Your task to perform on an android device: open app "Clock" Image 0: 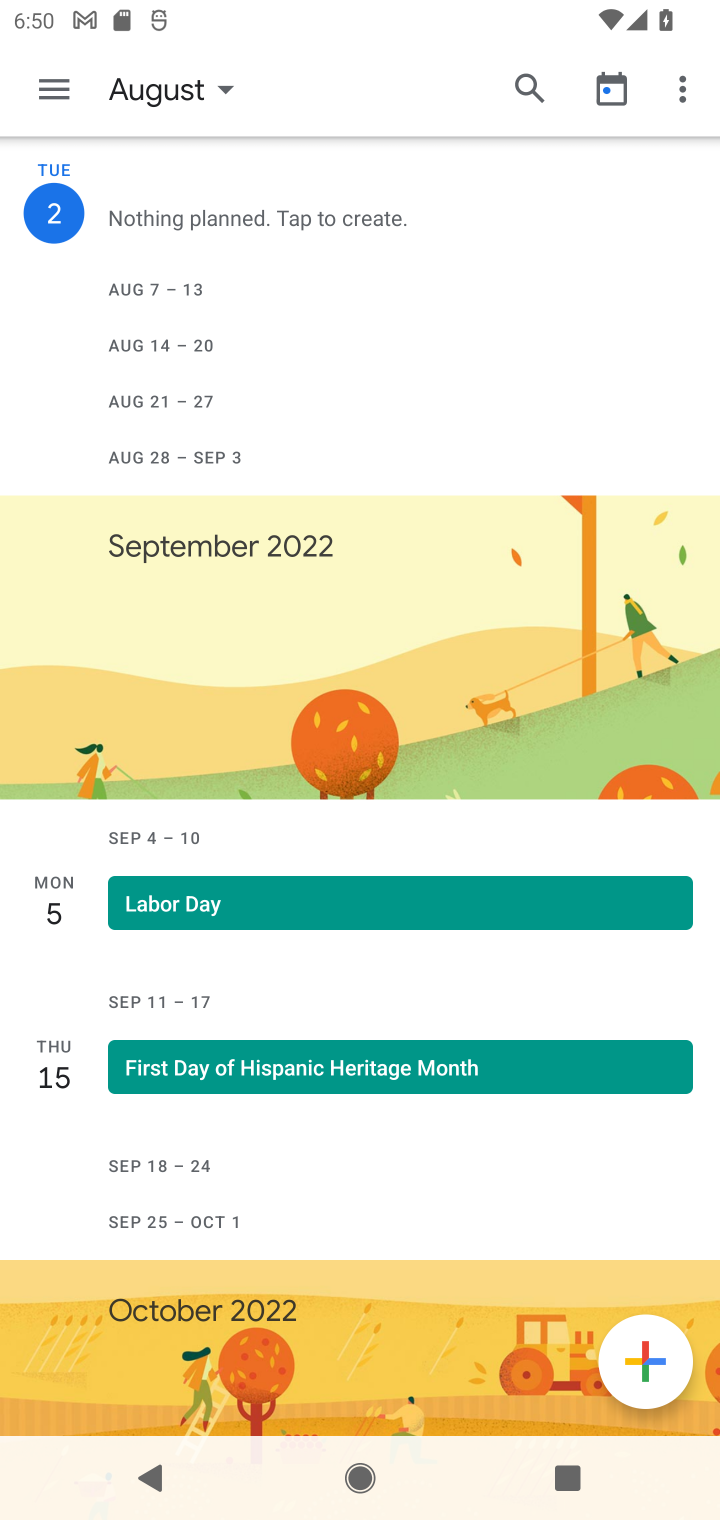
Step 0: press home button
Your task to perform on an android device: open app "Clock" Image 1: 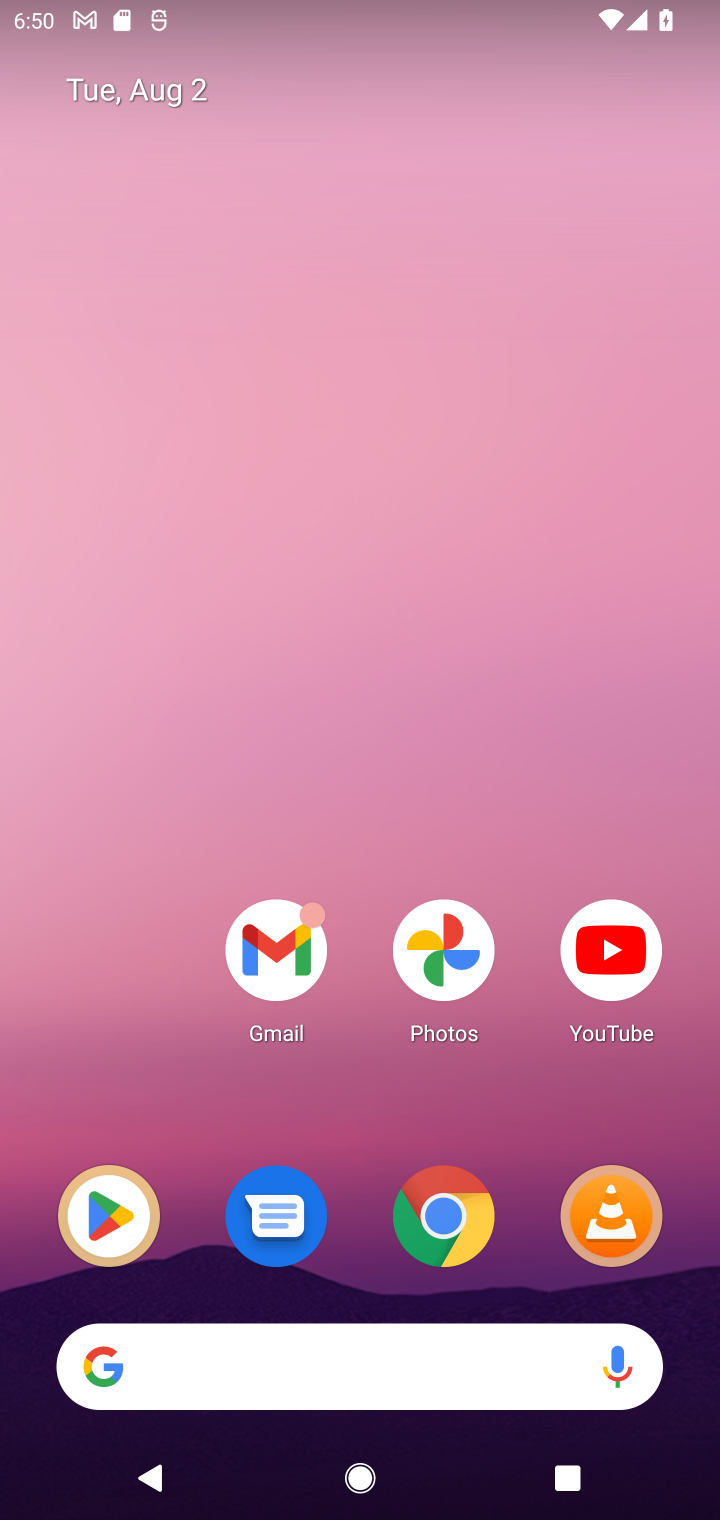
Step 1: click (109, 1199)
Your task to perform on an android device: open app "Clock" Image 2: 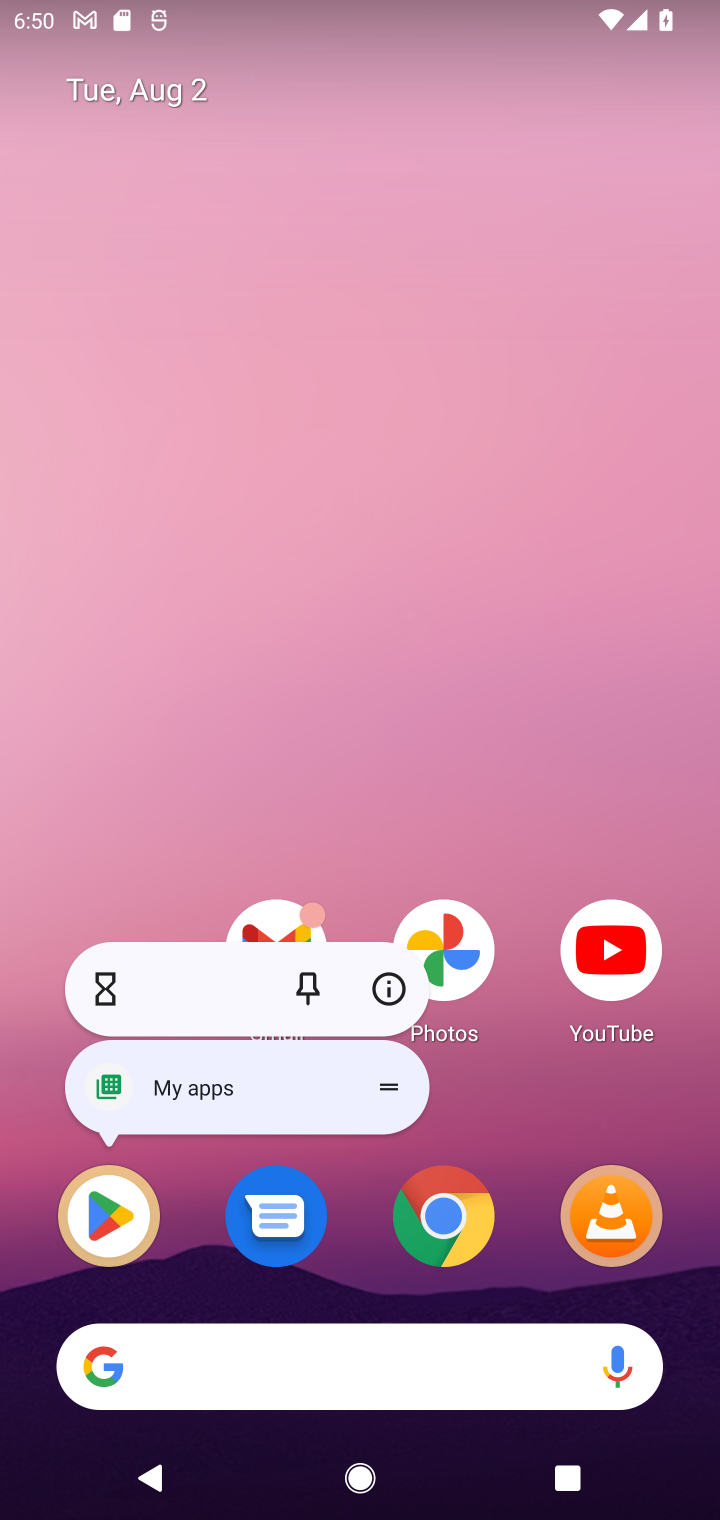
Step 2: click (109, 1199)
Your task to perform on an android device: open app "Clock" Image 3: 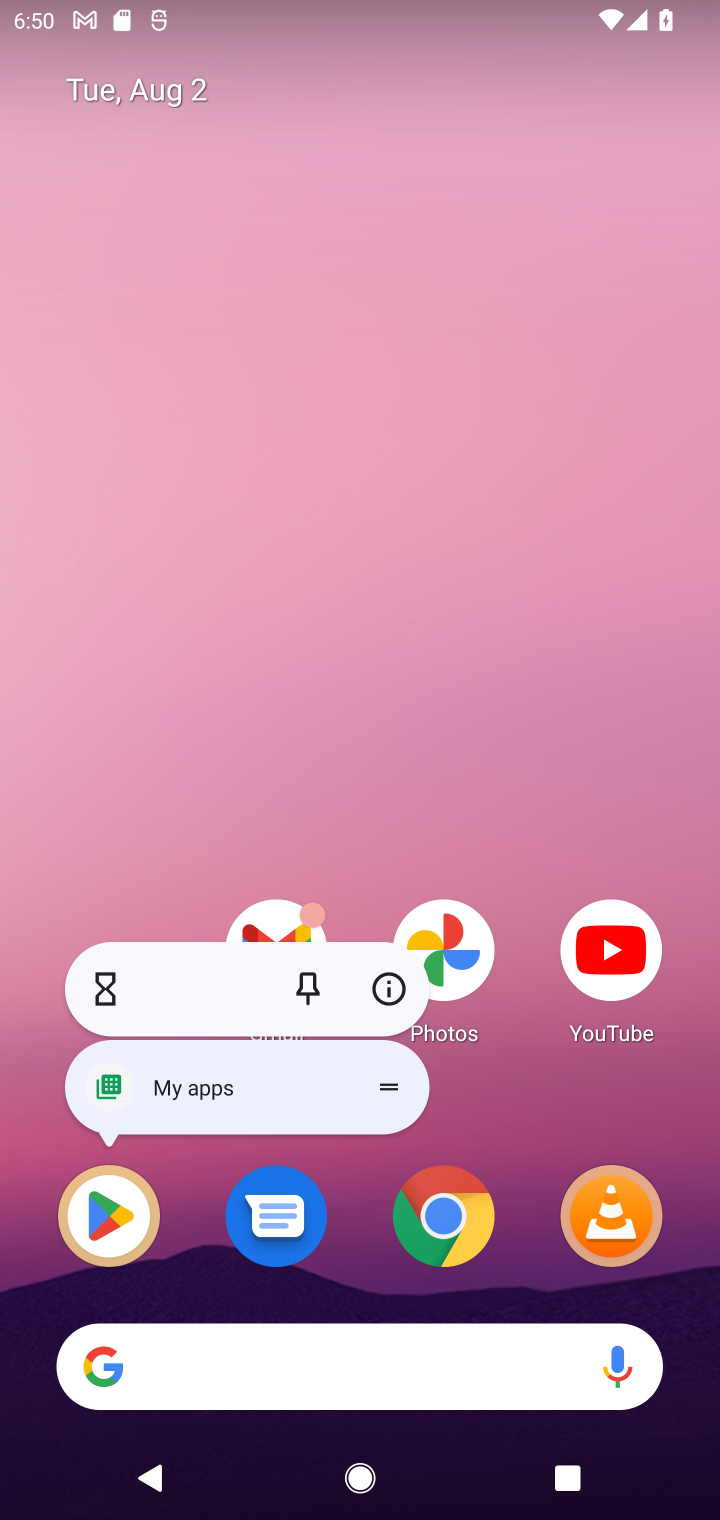
Step 3: click (107, 1214)
Your task to perform on an android device: open app "Clock" Image 4: 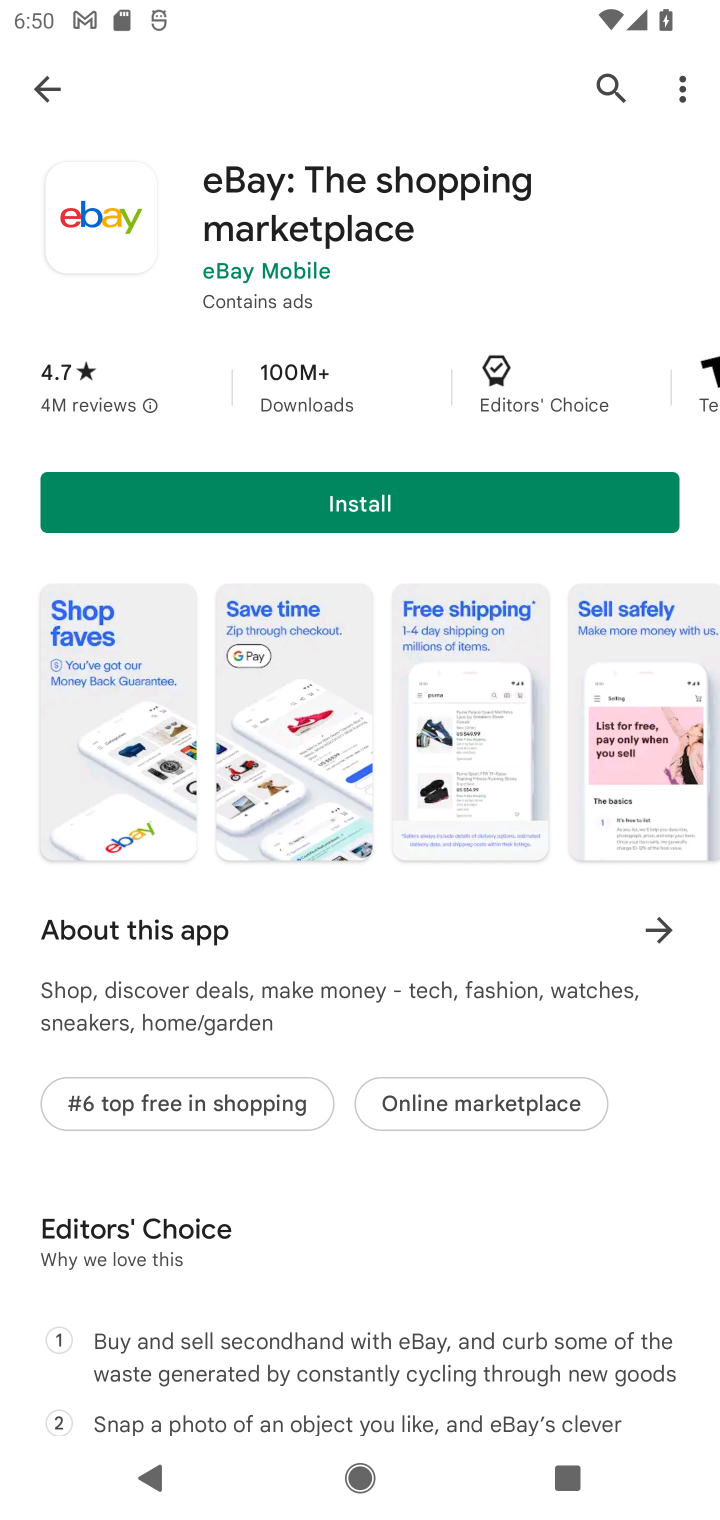
Step 4: click (599, 74)
Your task to perform on an android device: open app "Clock" Image 5: 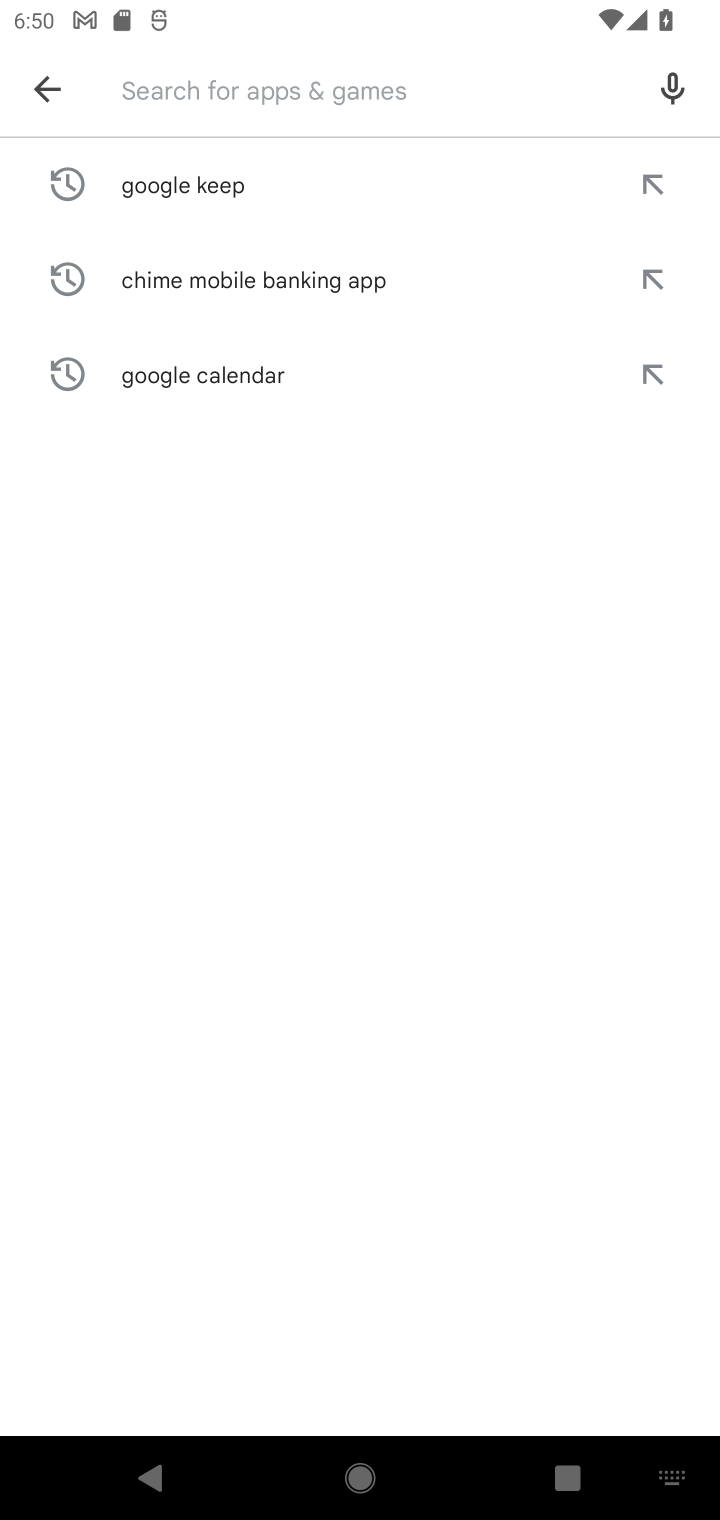
Step 5: type "Clock"
Your task to perform on an android device: open app "Clock" Image 6: 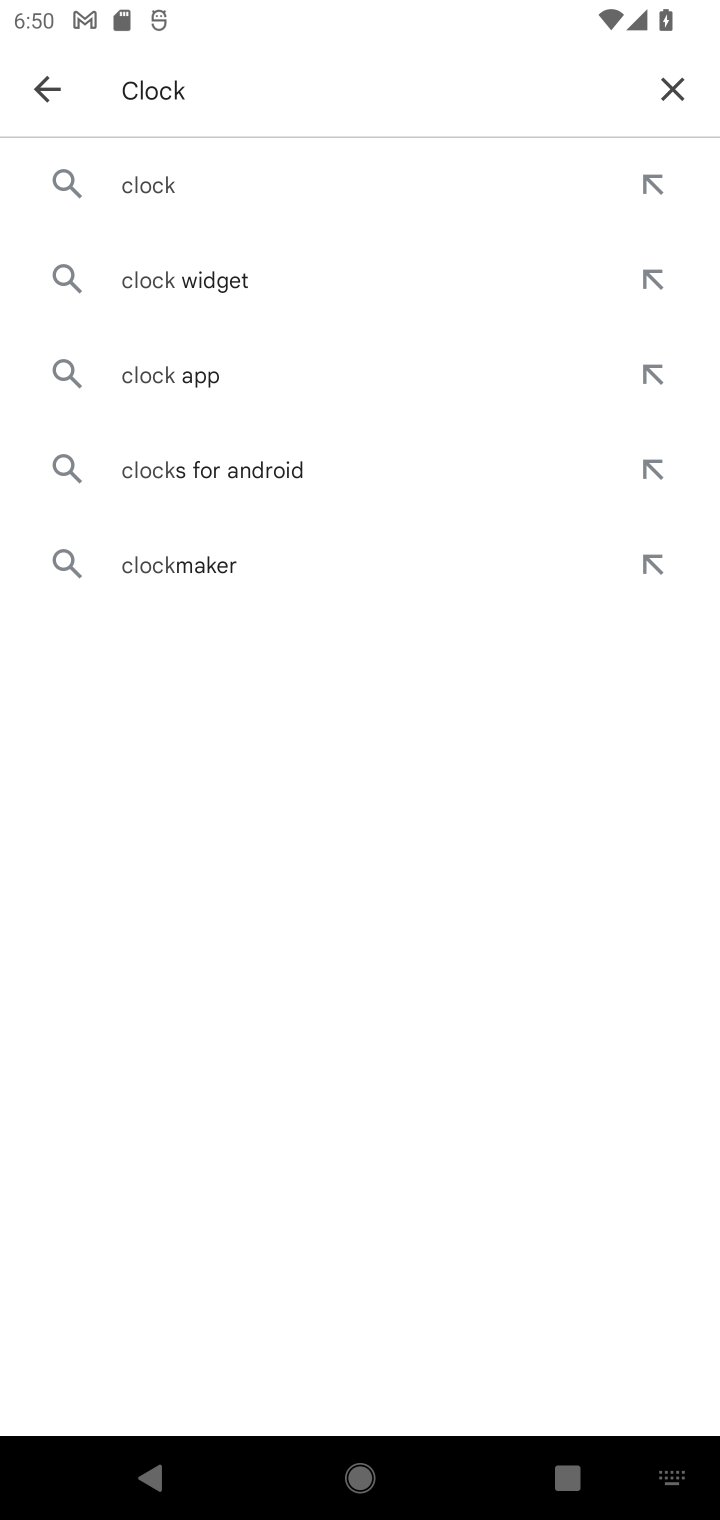
Step 6: click (152, 194)
Your task to perform on an android device: open app "Clock" Image 7: 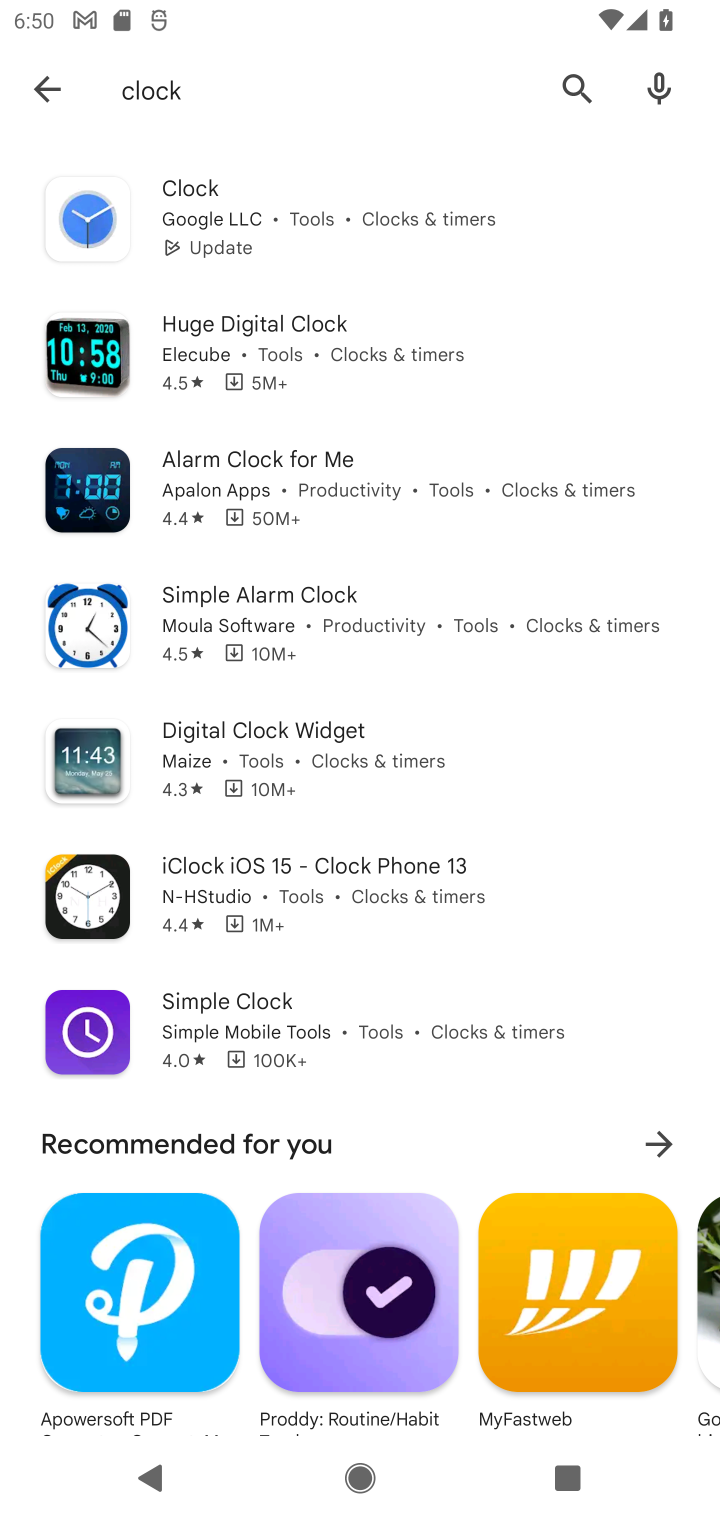
Step 7: click (197, 218)
Your task to perform on an android device: open app "Clock" Image 8: 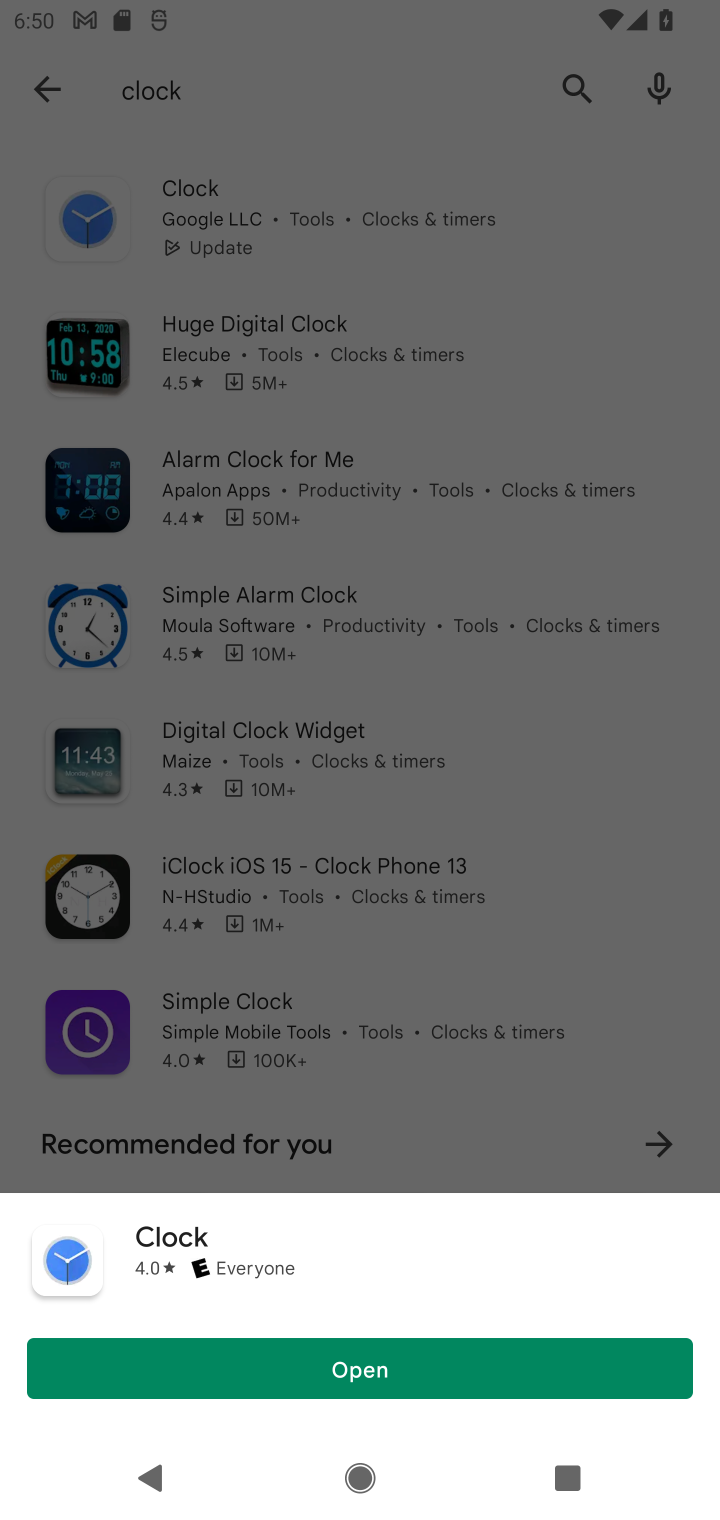
Step 8: click (357, 1371)
Your task to perform on an android device: open app "Clock" Image 9: 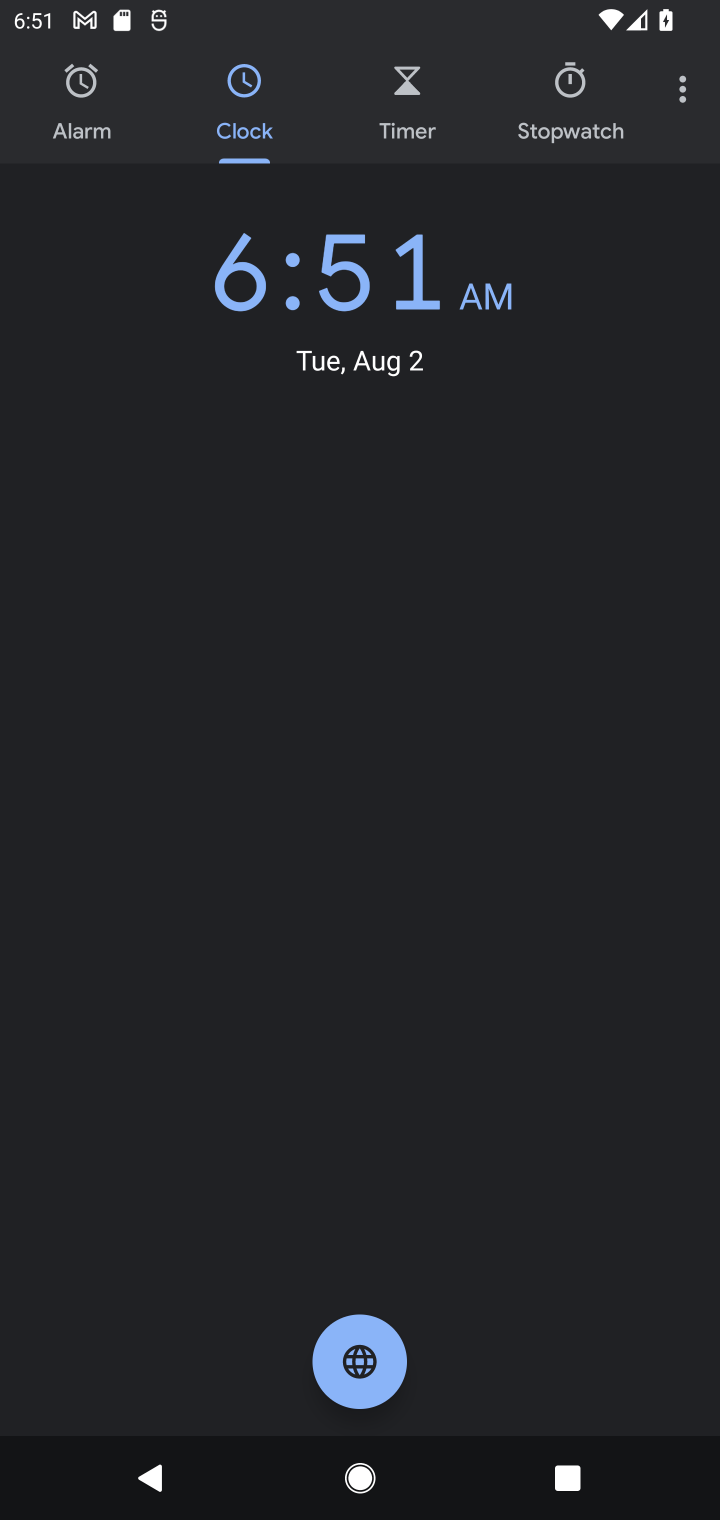
Step 9: task complete